Your task to perform on an android device: Search for "lg ultragear" on newegg.com, select the first entry, add it to the cart, then select checkout. Image 0: 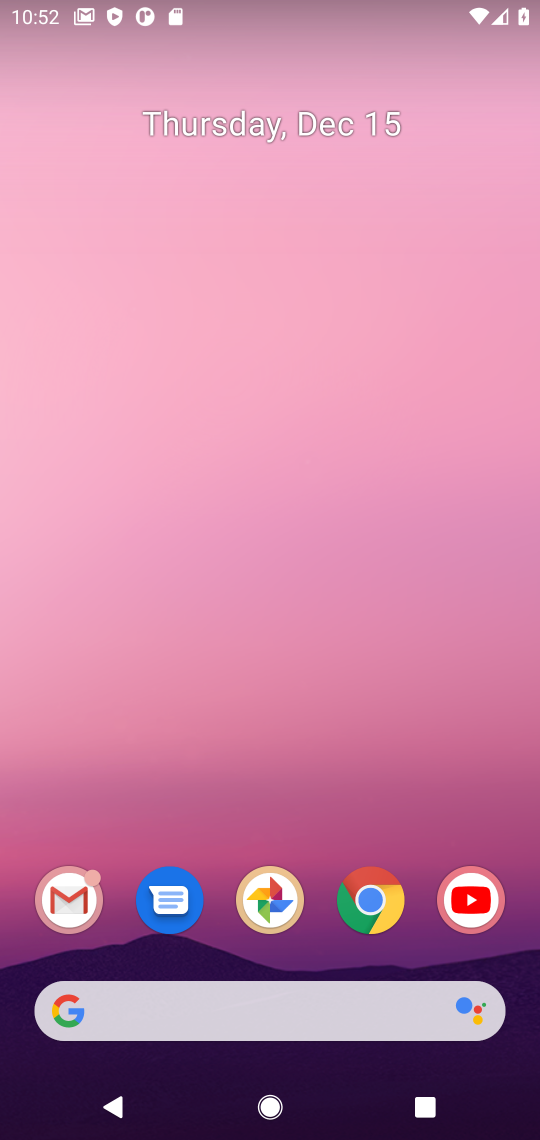
Step 0: click (367, 905)
Your task to perform on an android device: Search for "lg ultragear" on newegg.com, select the first entry, add it to the cart, then select checkout. Image 1: 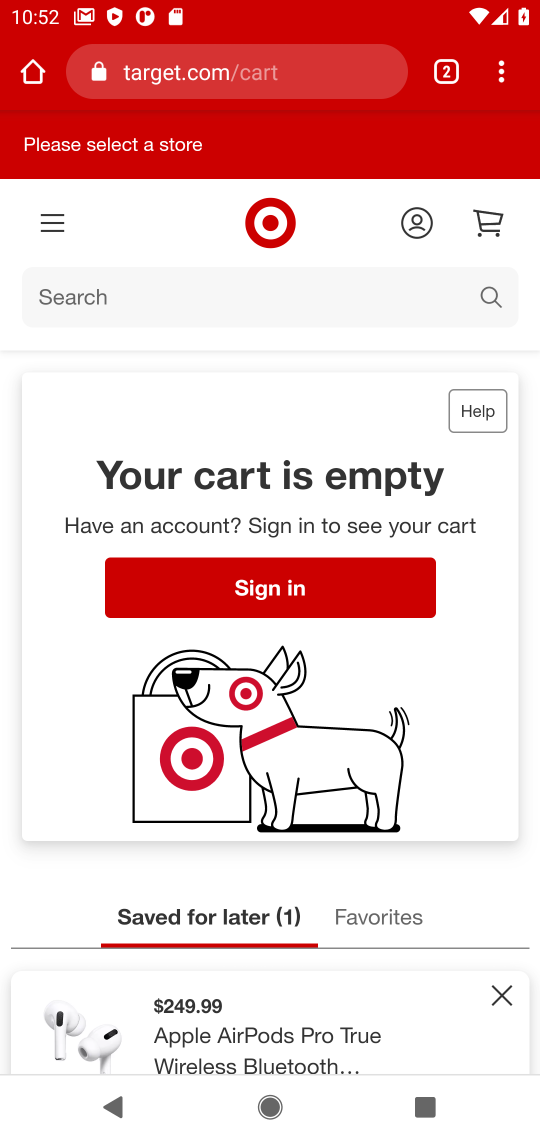
Step 1: click (217, 86)
Your task to perform on an android device: Search for "lg ultragear" on newegg.com, select the first entry, add it to the cart, then select checkout. Image 2: 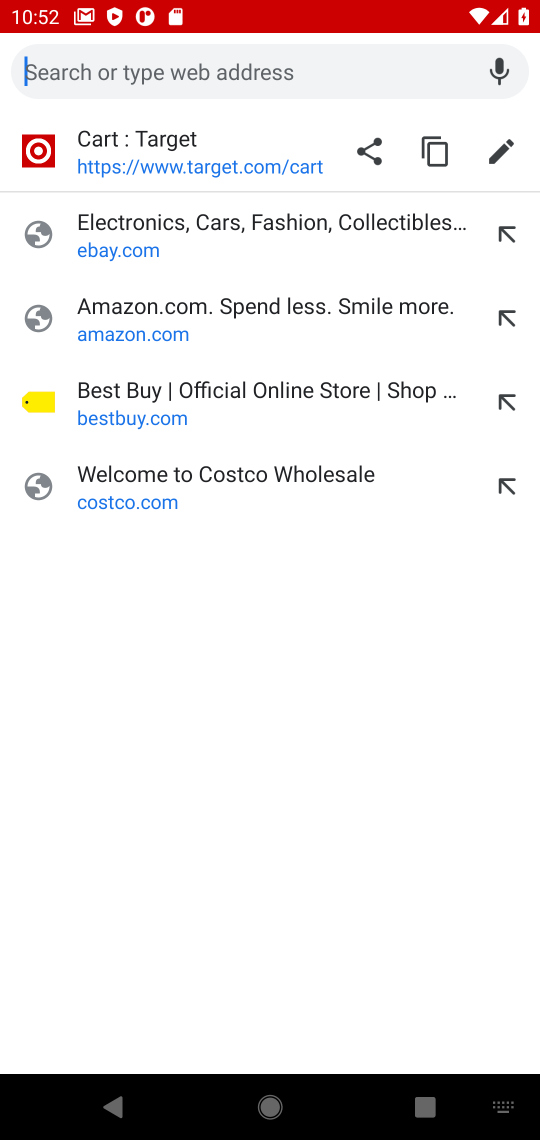
Step 2: type "newegg.com"
Your task to perform on an android device: Search for "lg ultragear" on newegg.com, select the first entry, add it to the cart, then select checkout. Image 3: 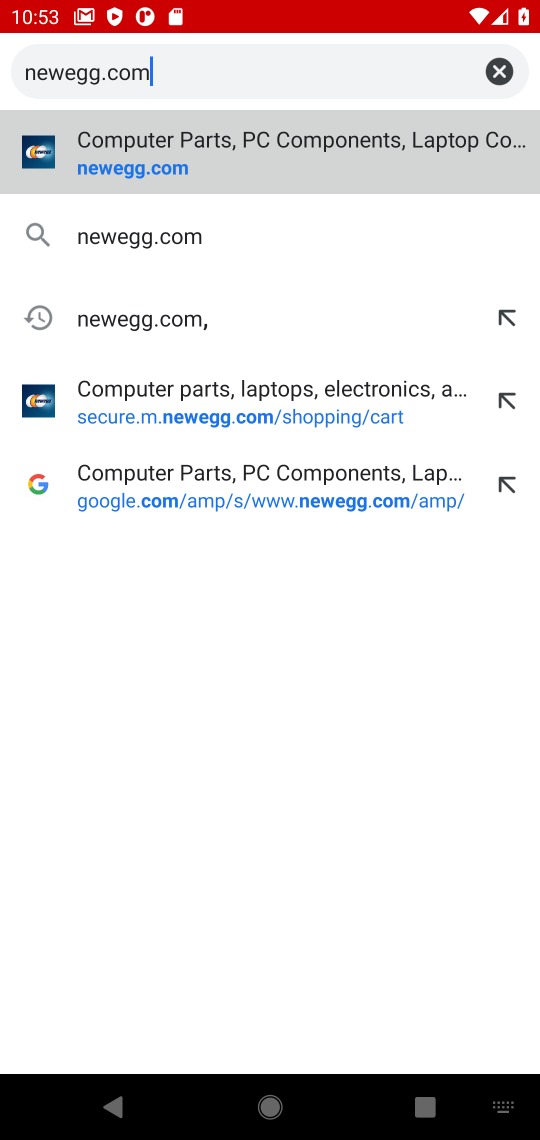
Step 3: click (121, 152)
Your task to perform on an android device: Search for "lg ultragear" on newegg.com, select the first entry, add it to the cart, then select checkout. Image 4: 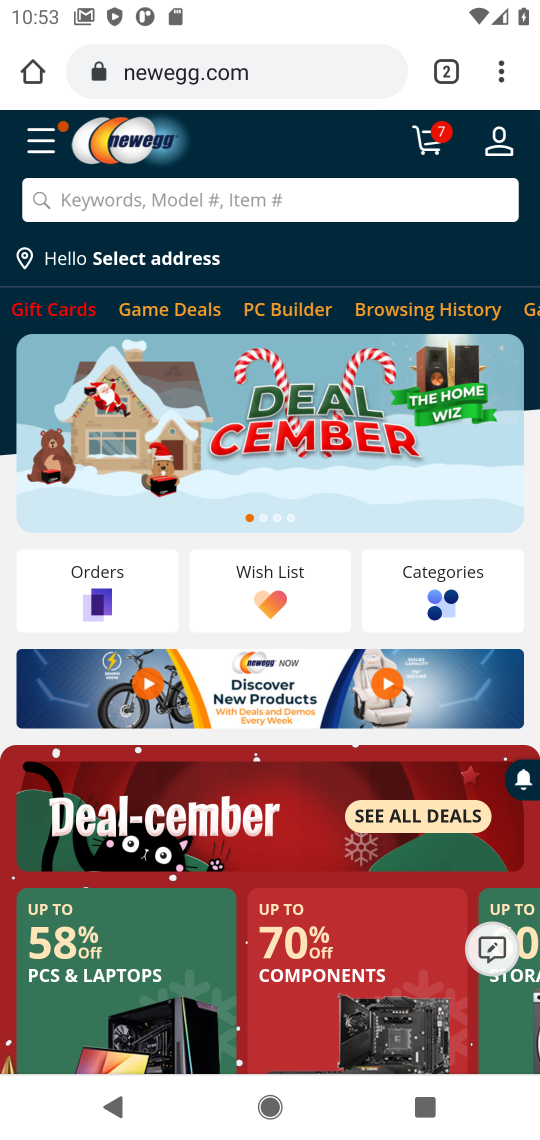
Step 4: click (419, 203)
Your task to perform on an android device: Search for "lg ultragear" on newegg.com, select the first entry, add it to the cart, then select checkout. Image 5: 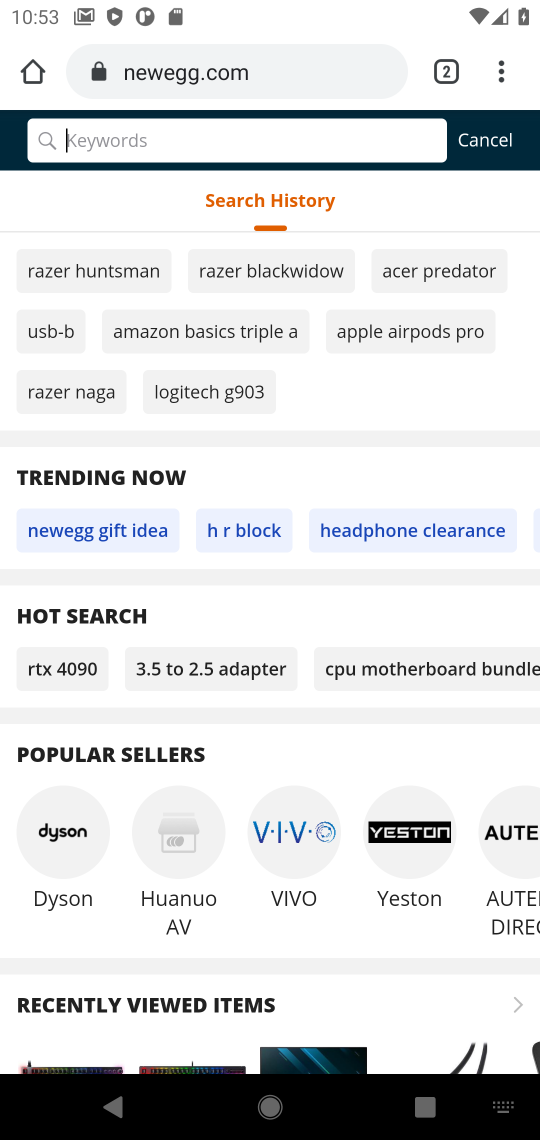
Step 5: type "lg ultragear"
Your task to perform on an android device: Search for "lg ultragear" on newegg.com, select the first entry, add it to the cart, then select checkout. Image 6: 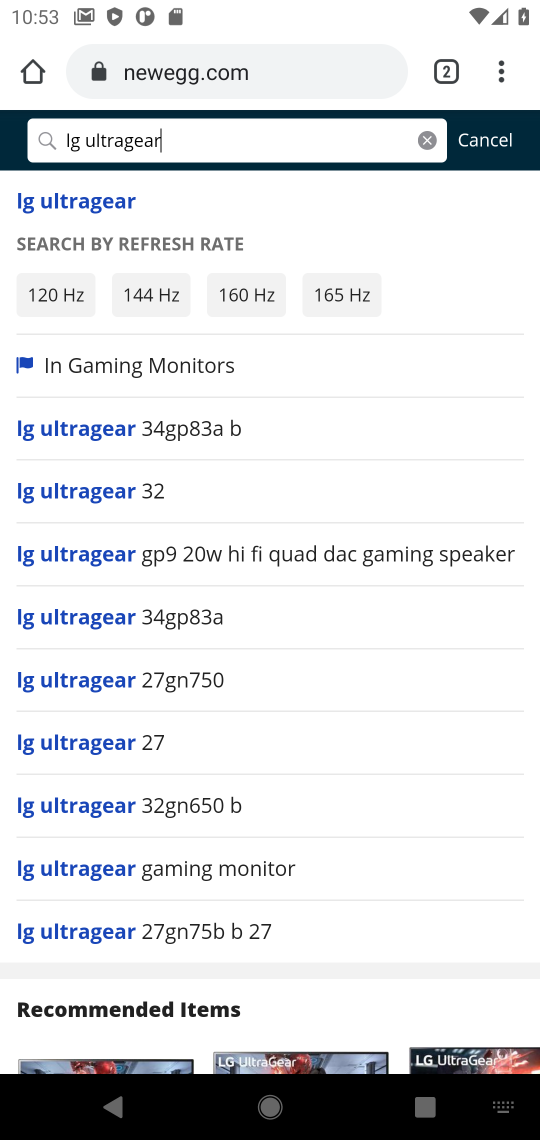
Step 6: press enter
Your task to perform on an android device: Search for "lg ultragear" on newegg.com, select the first entry, add it to the cart, then select checkout. Image 7: 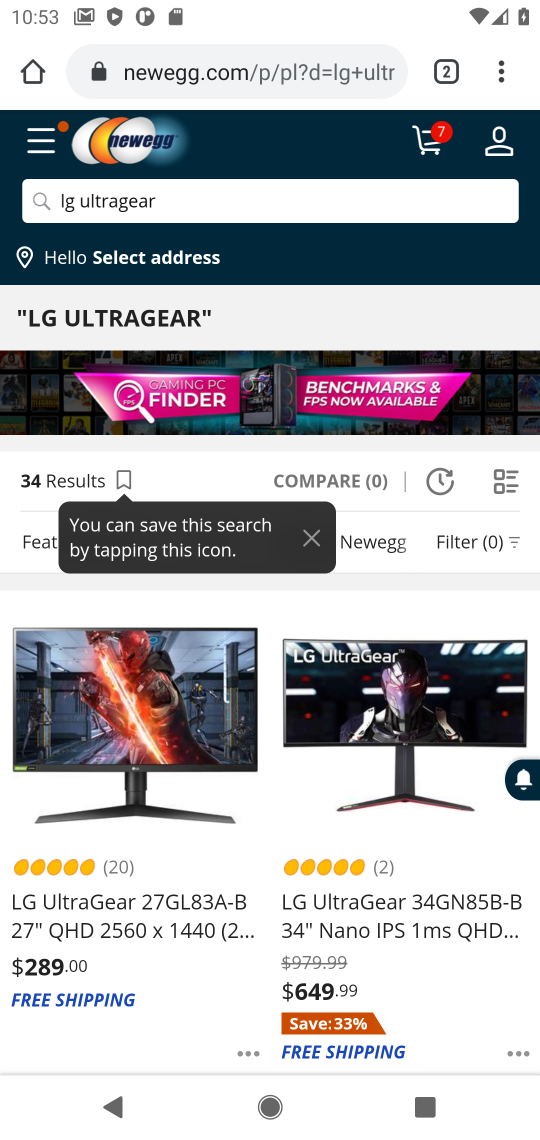
Step 7: click (169, 895)
Your task to perform on an android device: Search for "lg ultragear" on newegg.com, select the first entry, add it to the cart, then select checkout. Image 8: 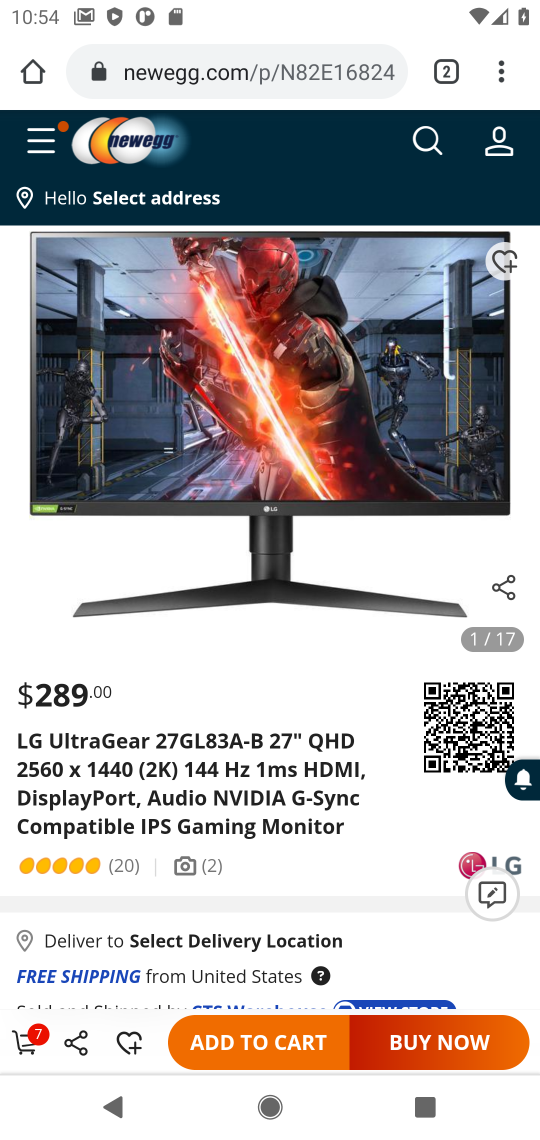
Step 8: click (245, 1041)
Your task to perform on an android device: Search for "lg ultragear" on newegg.com, select the first entry, add it to the cart, then select checkout. Image 9: 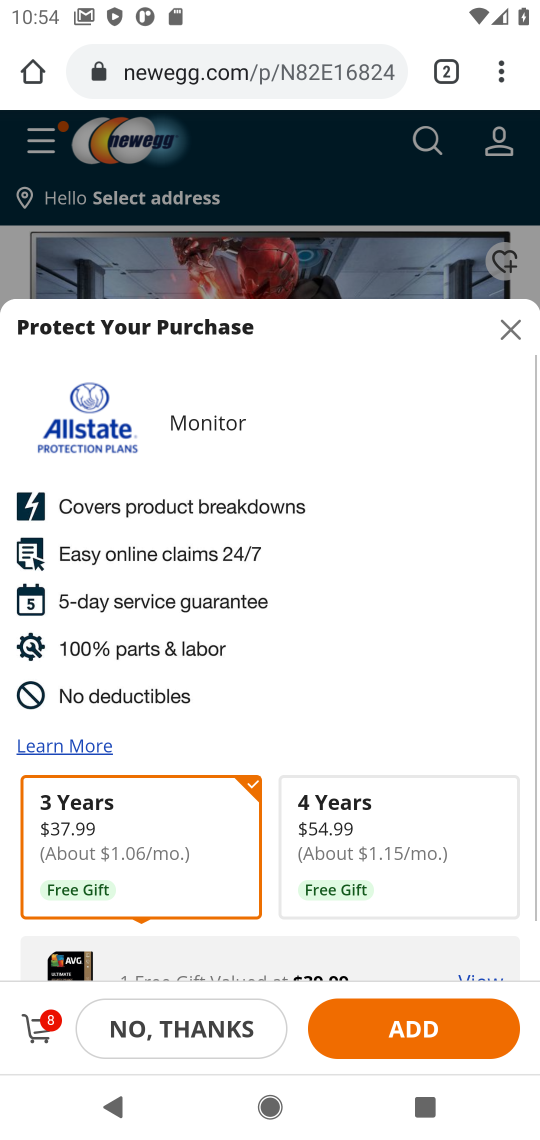
Step 9: click (427, 1031)
Your task to perform on an android device: Search for "lg ultragear" on newegg.com, select the first entry, add it to the cart, then select checkout. Image 10: 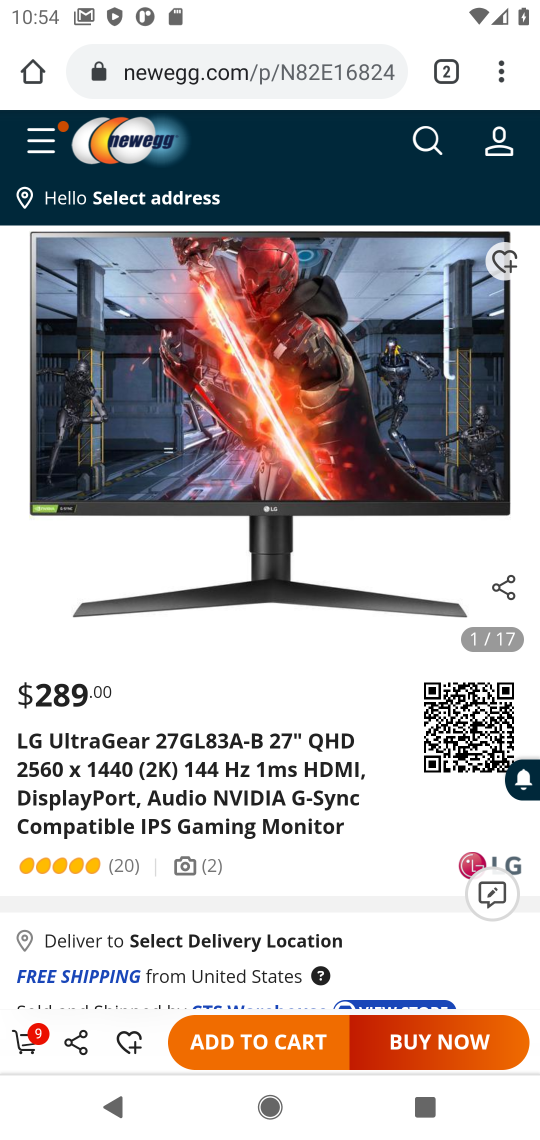
Step 10: click (23, 1041)
Your task to perform on an android device: Search for "lg ultragear" on newegg.com, select the first entry, add it to the cart, then select checkout. Image 11: 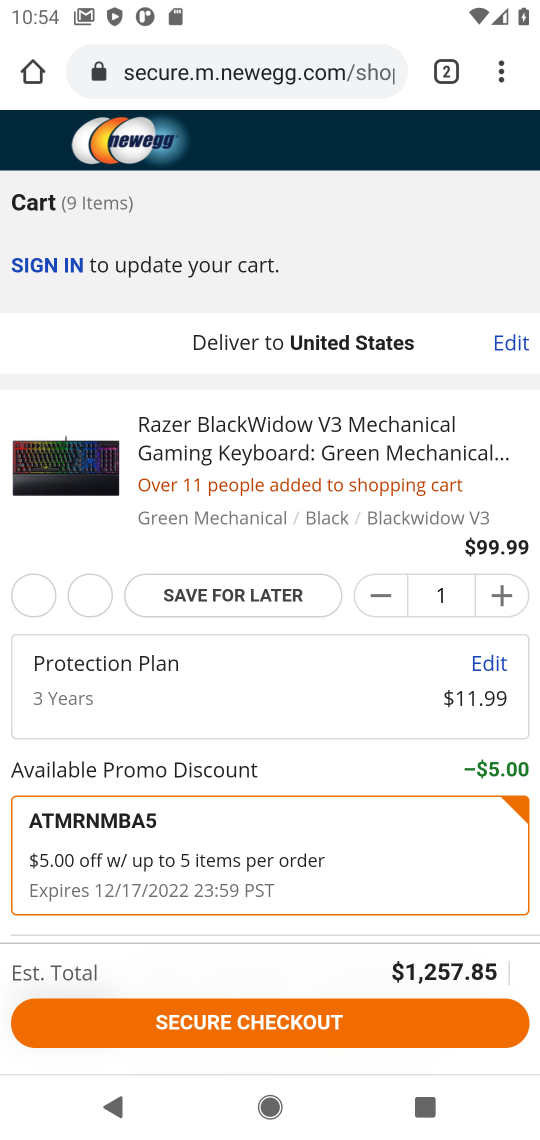
Step 11: drag from (263, 873) to (233, 4)
Your task to perform on an android device: Search for "lg ultragear" on newegg.com, select the first entry, add it to the cart, then select checkout. Image 12: 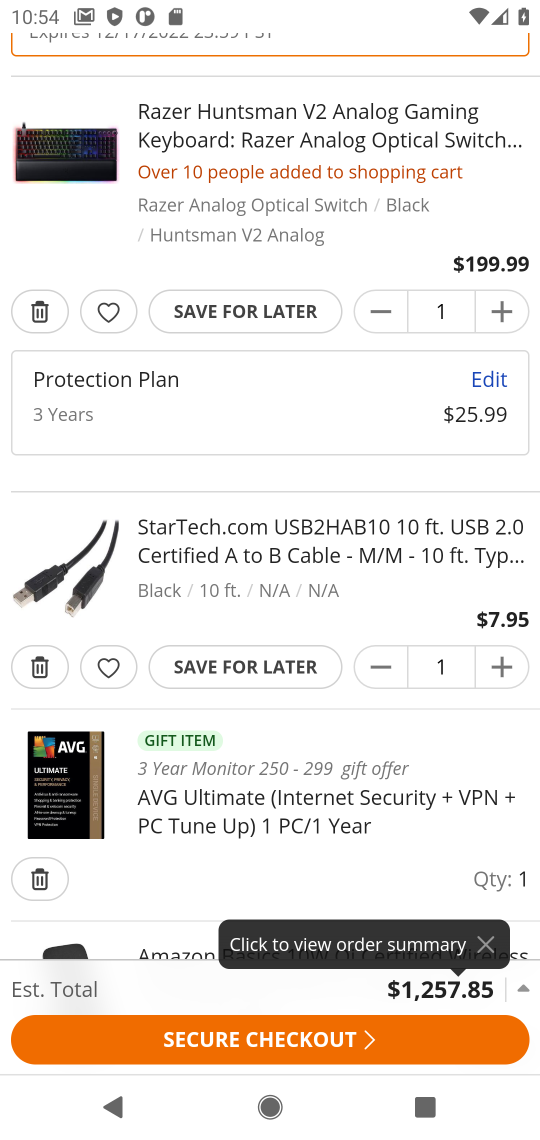
Step 12: drag from (316, 815) to (300, 484)
Your task to perform on an android device: Search for "lg ultragear" on newegg.com, select the first entry, add it to the cart, then select checkout. Image 13: 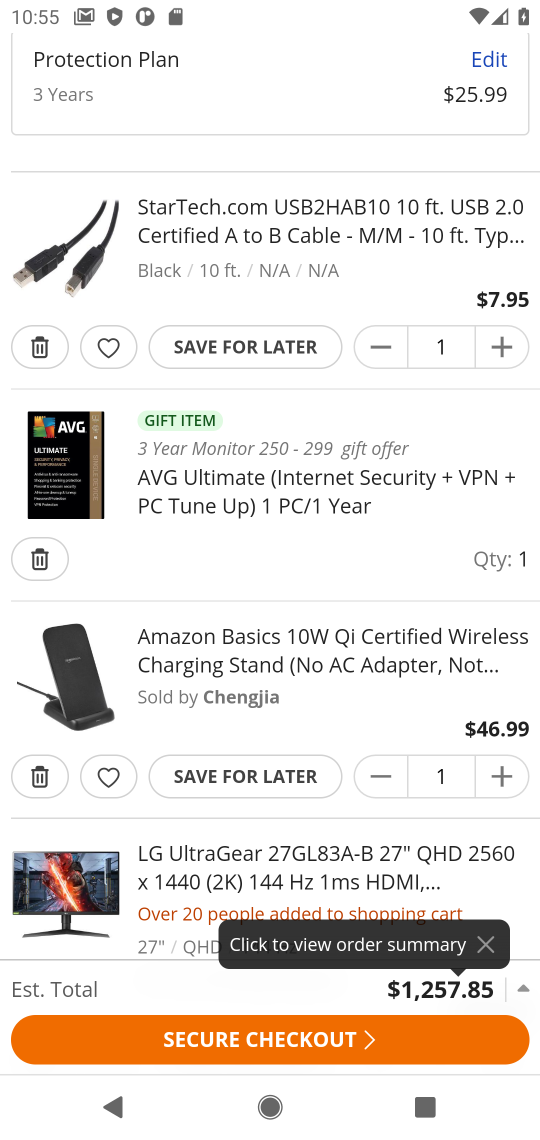
Step 13: press back button
Your task to perform on an android device: Search for "lg ultragear" on newegg.com, select the first entry, add it to the cart, then select checkout. Image 14: 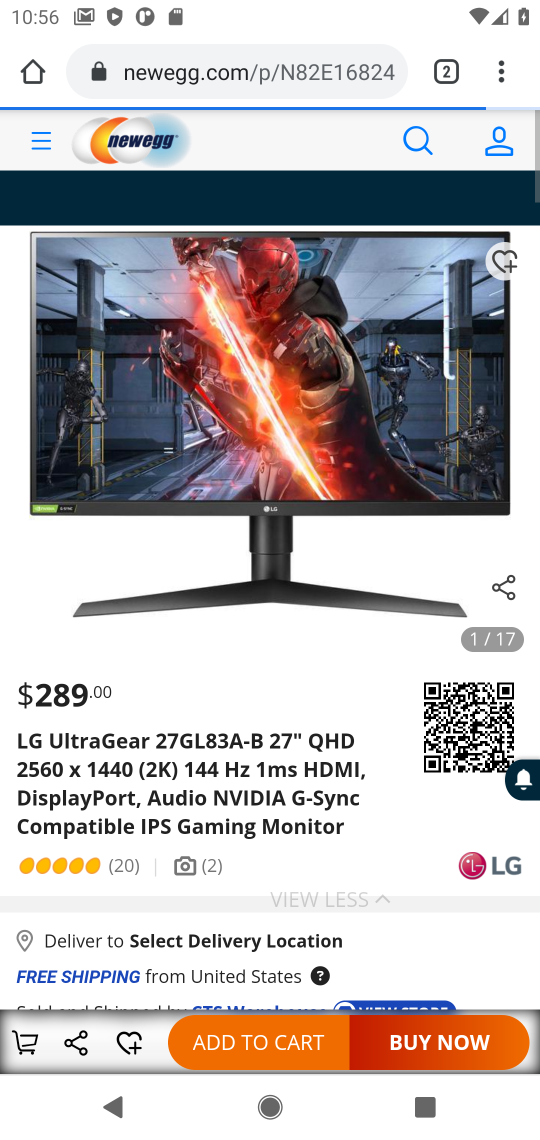
Step 14: click (270, 1023)
Your task to perform on an android device: Search for "lg ultragear" on newegg.com, select the first entry, add it to the cart, then select checkout. Image 15: 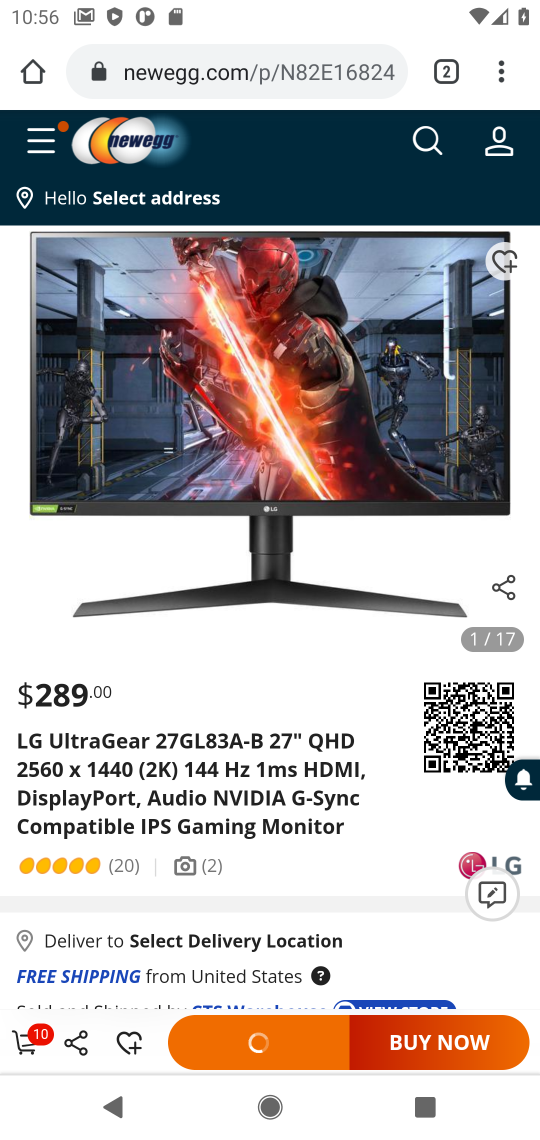
Step 15: click (258, 1044)
Your task to perform on an android device: Search for "lg ultragear" on newegg.com, select the first entry, add it to the cart, then select checkout. Image 16: 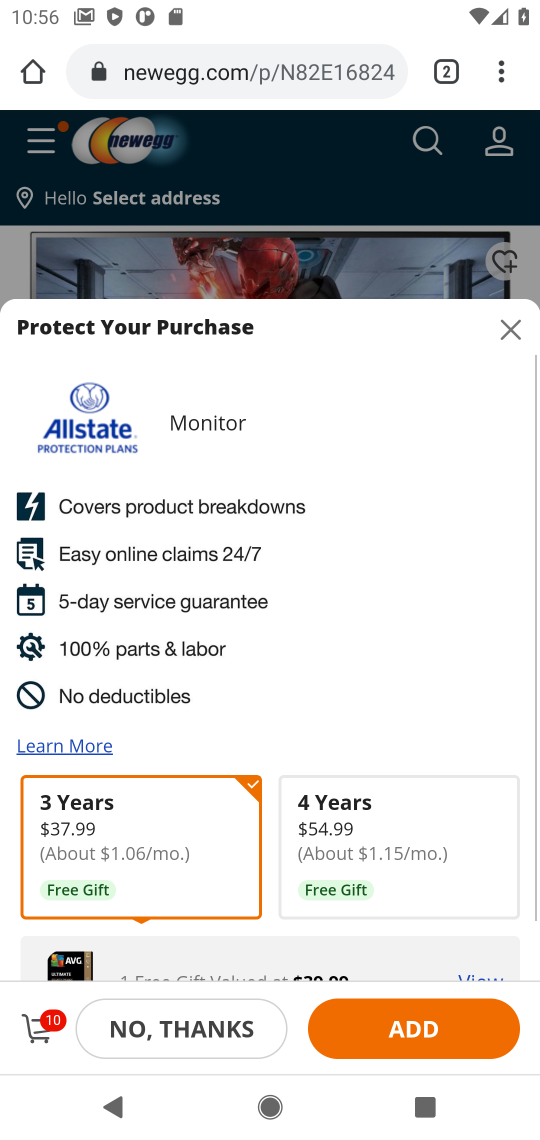
Step 16: click (402, 1038)
Your task to perform on an android device: Search for "lg ultragear" on newegg.com, select the first entry, add it to the cart, then select checkout. Image 17: 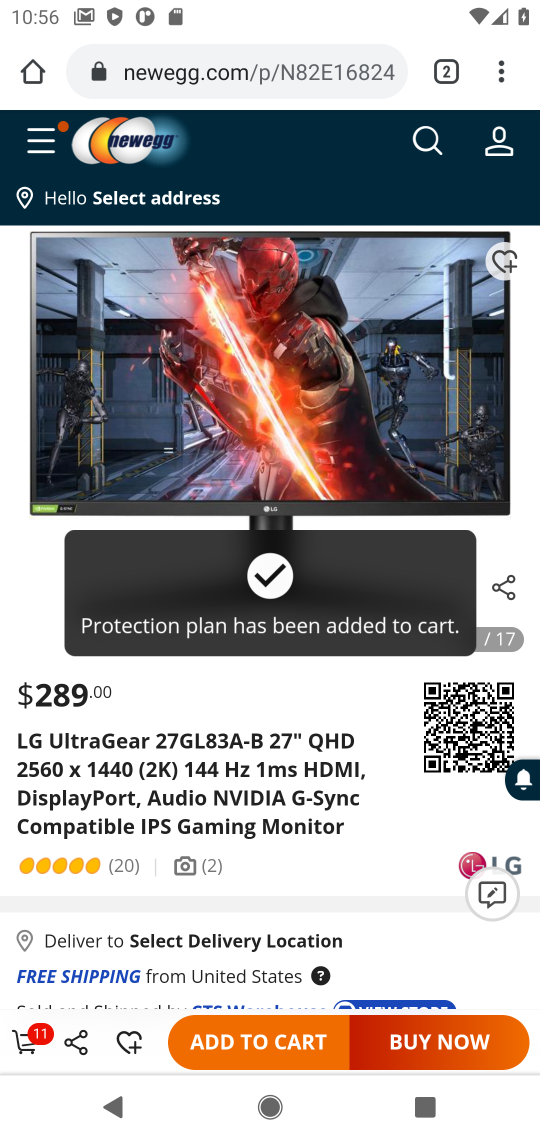
Step 17: click (35, 1036)
Your task to perform on an android device: Search for "lg ultragear" on newegg.com, select the first entry, add it to the cart, then select checkout. Image 18: 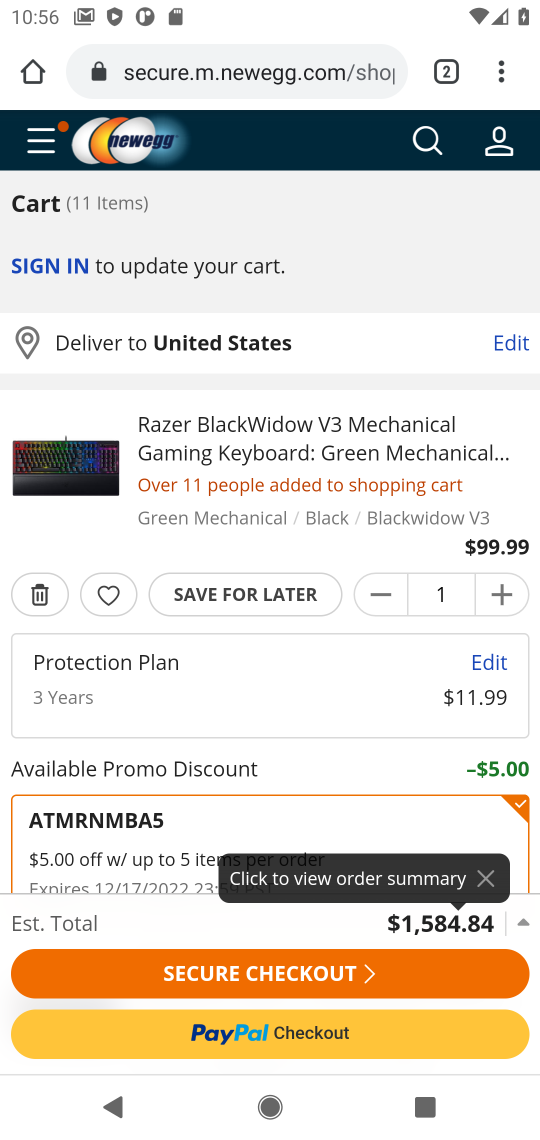
Step 18: click (174, 966)
Your task to perform on an android device: Search for "lg ultragear" on newegg.com, select the first entry, add it to the cart, then select checkout. Image 19: 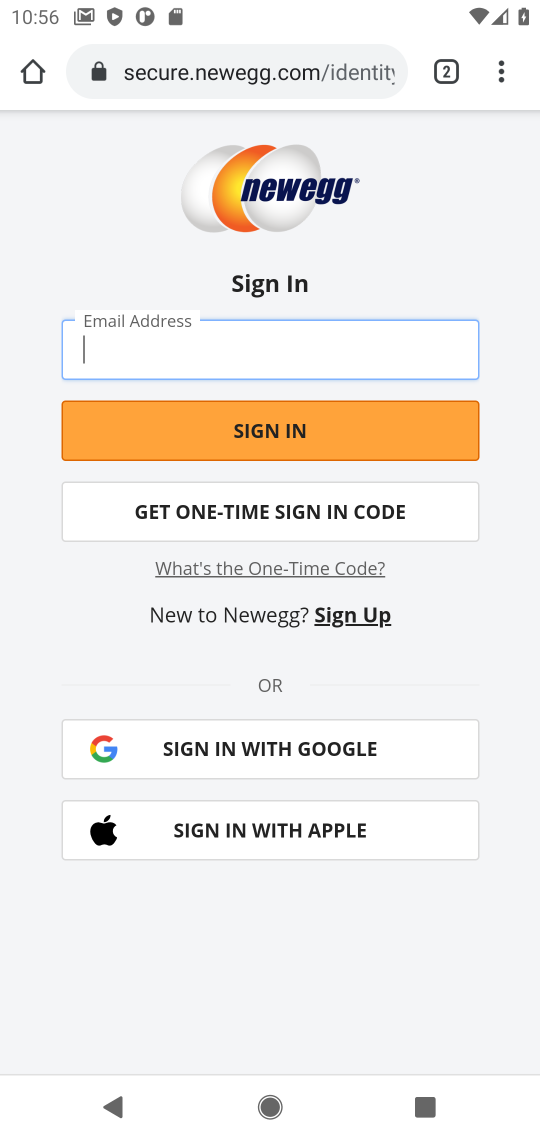
Step 19: task complete